Your task to perform on an android device: Go to settings Image 0: 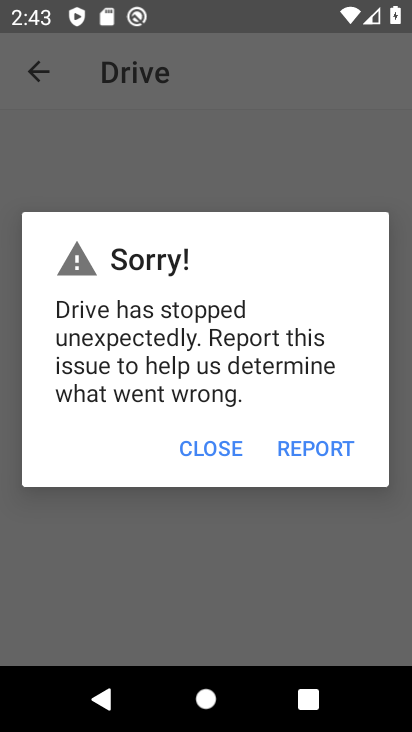
Step 0: click (198, 453)
Your task to perform on an android device: Go to settings Image 1: 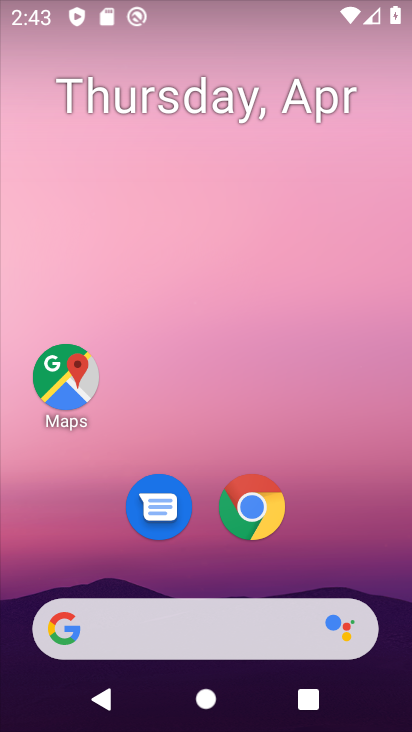
Step 1: drag from (143, 585) to (247, 67)
Your task to perform on an android device: Go to settings Image 2: 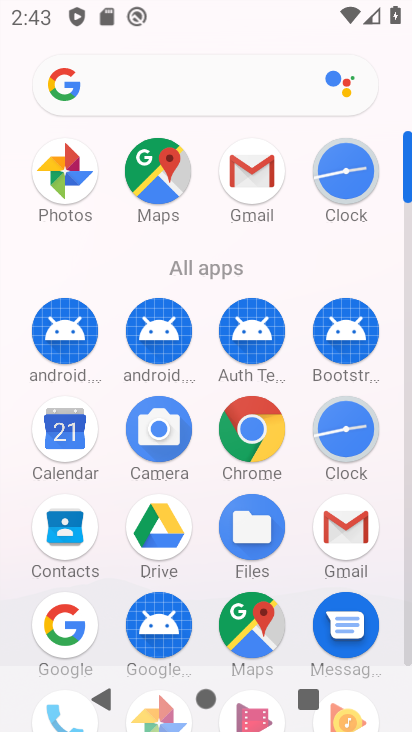
Step 2: drag from (199, 689) to (283, 323)
Your task to perform on an android device: Go to settings Image 3: 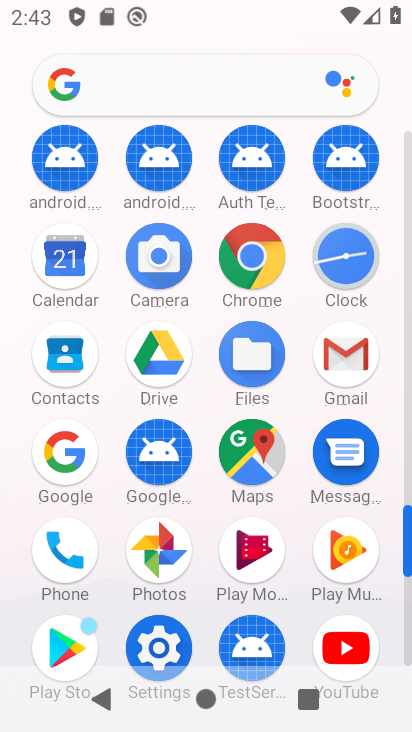
Step 3: click (162, 660)
Your task to perform on an android device: Go to settings Image 4: 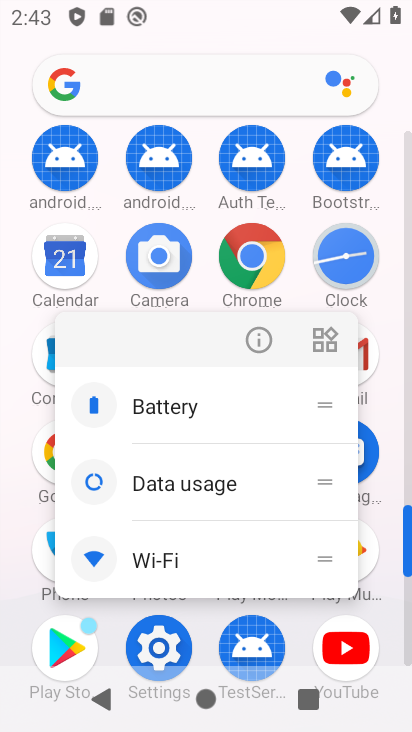
Step 4: click (155, 648)
Your task to perform on an android device: Go to settings Image 5: 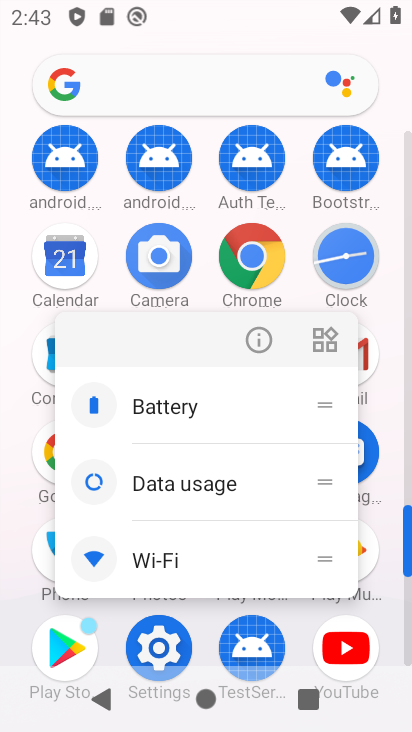
Step 5: click (161, 642)
Your task to perform on an android device: Go to settings Image 6: 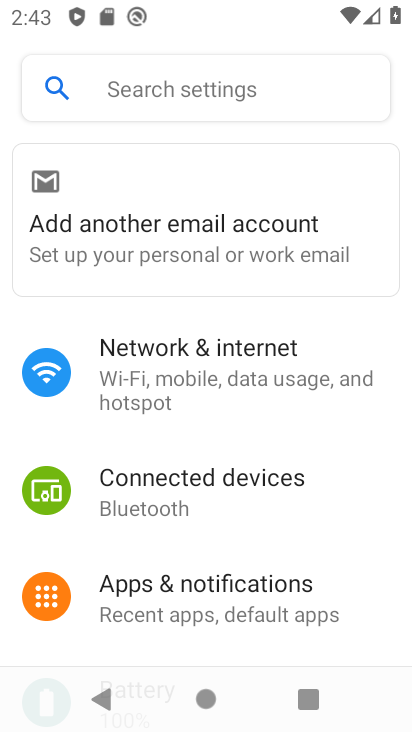
Step 6: task complete